Your task to perform on an android device: open app "Messenger Lite" (install if not already installed), go to login, and select forgot password Image 0: 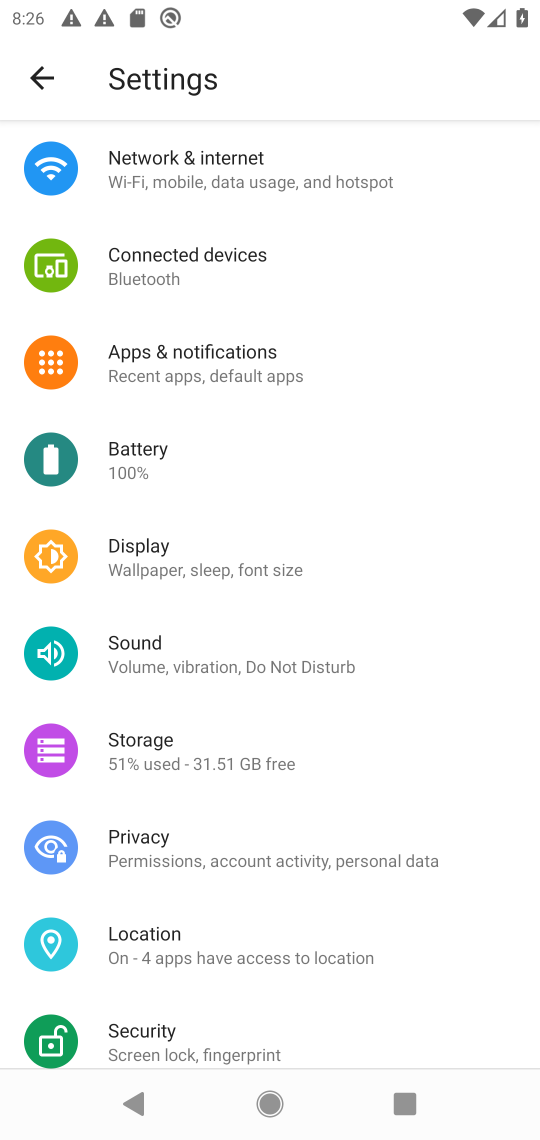
Step 0: press home button
Your task to perform on an android device: open app "Messenger Lite" (install if not already installed), go to login, and select forgot password Image 1: 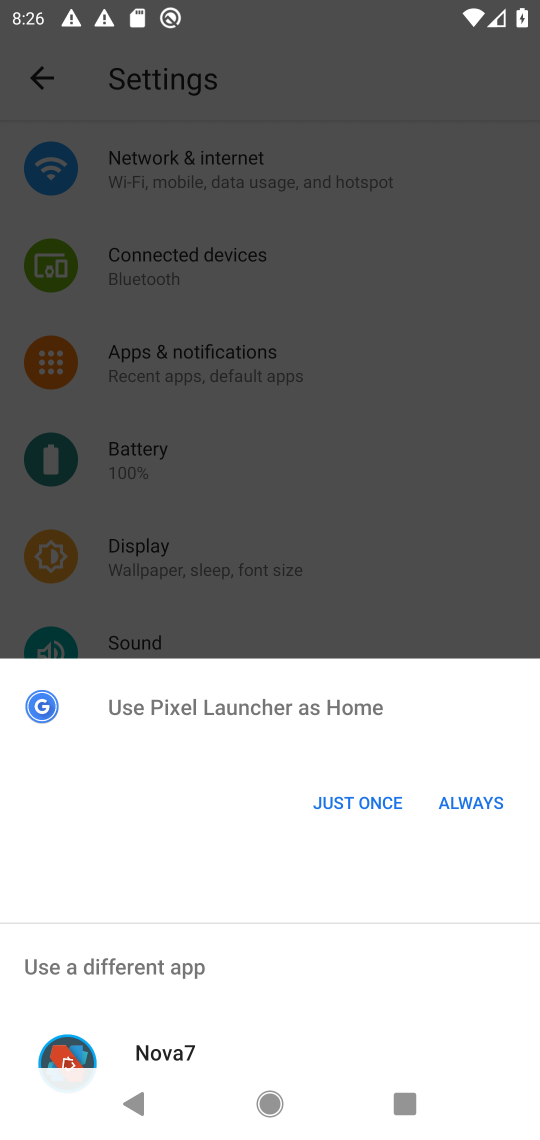
Step 1: click (363, 797)
Your task to perform on an android device: open app "Messenger Lite" (install if not already installed), go to login, and select forgot password Image 2: 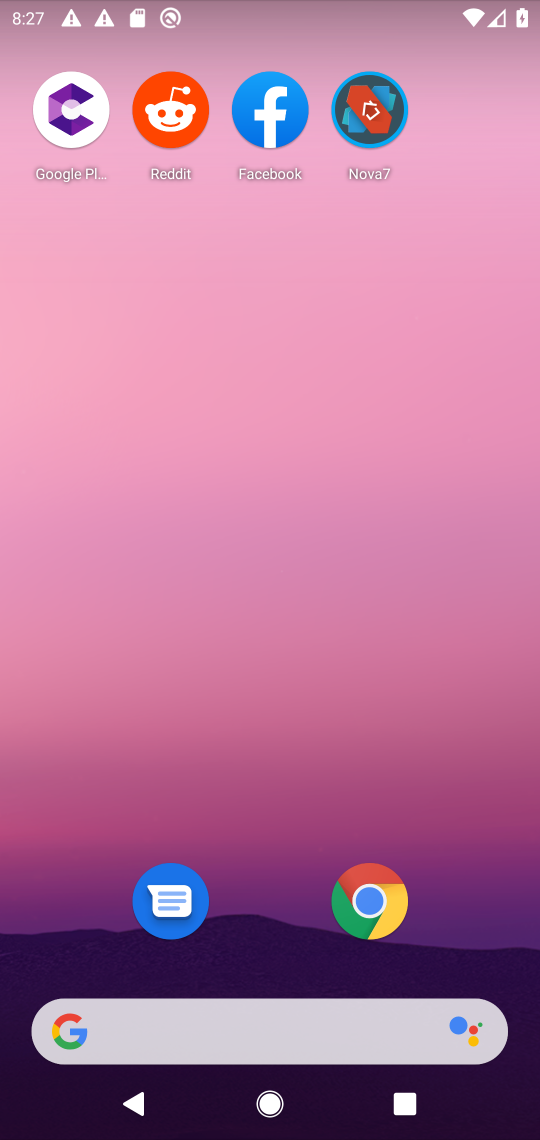
Step 2: drag from (335, 1065) to (367, 80)
Your task to perform on an android device: open app "Messenger Lite" (install if not already installed), go to login, and select forgot password Image 3: 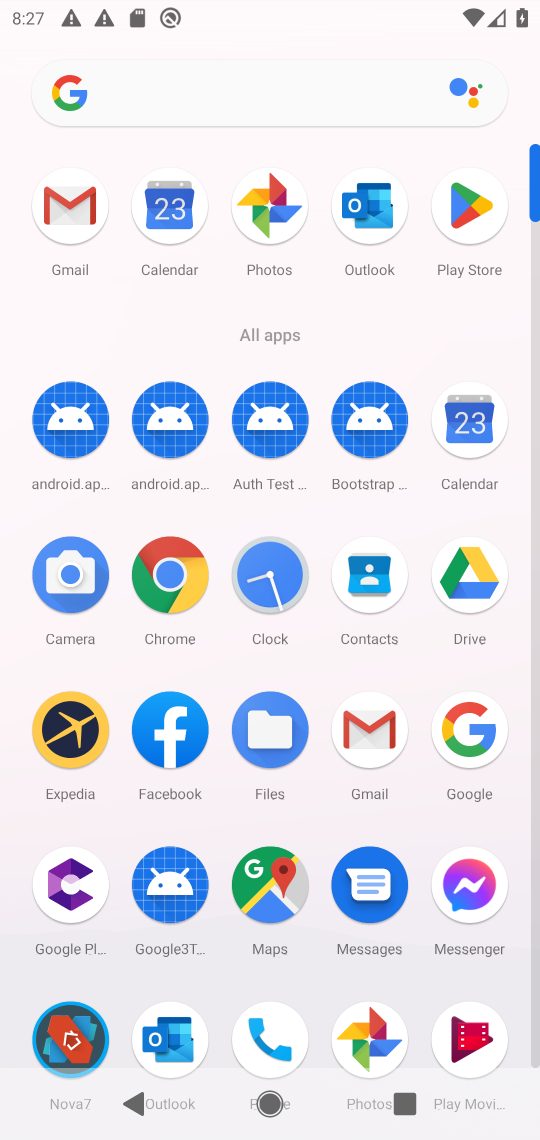
Step 3: click (473, 194)
Your task to perform on an android device: open app "Messenger Lite" (install if not already installed), go to login, and select forgot password Image 4: 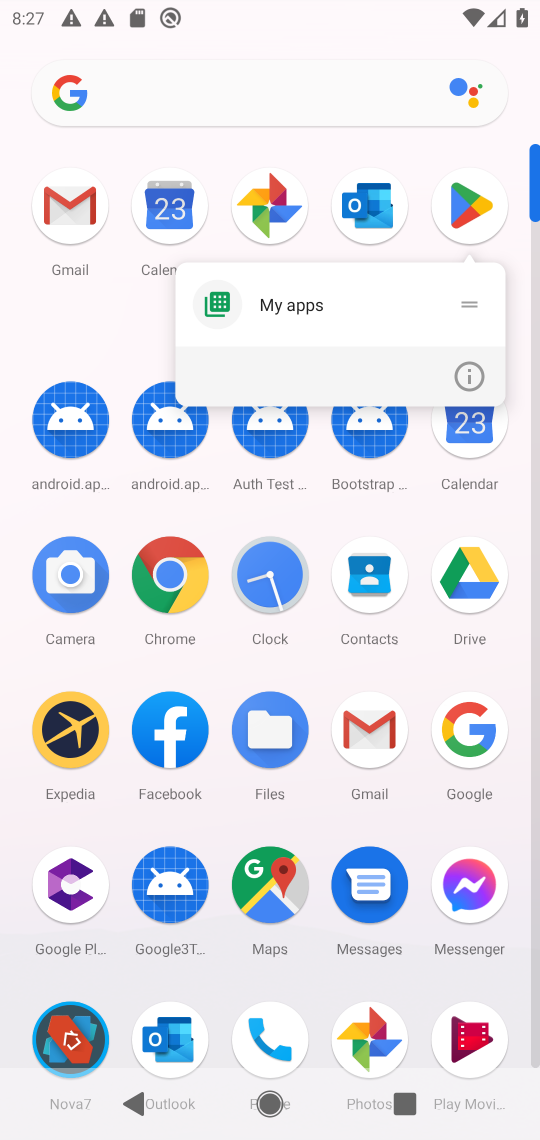
Step 4: click (473, 194)
Your task to perform on an android device: open app "Messenger Lite" (install if not already installed), go to login, and select forgot password Image 5: 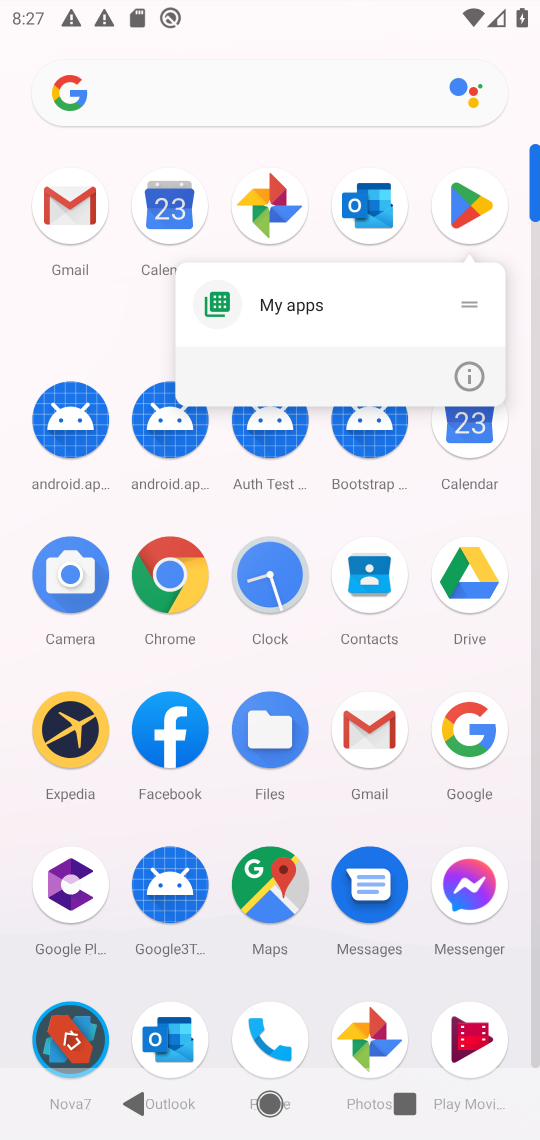
Step 5: click (473, 194)
Your task to perform on an android device: open app "Messenger Lite" (install if not already installed), go to login, and select forgot password Image 6: 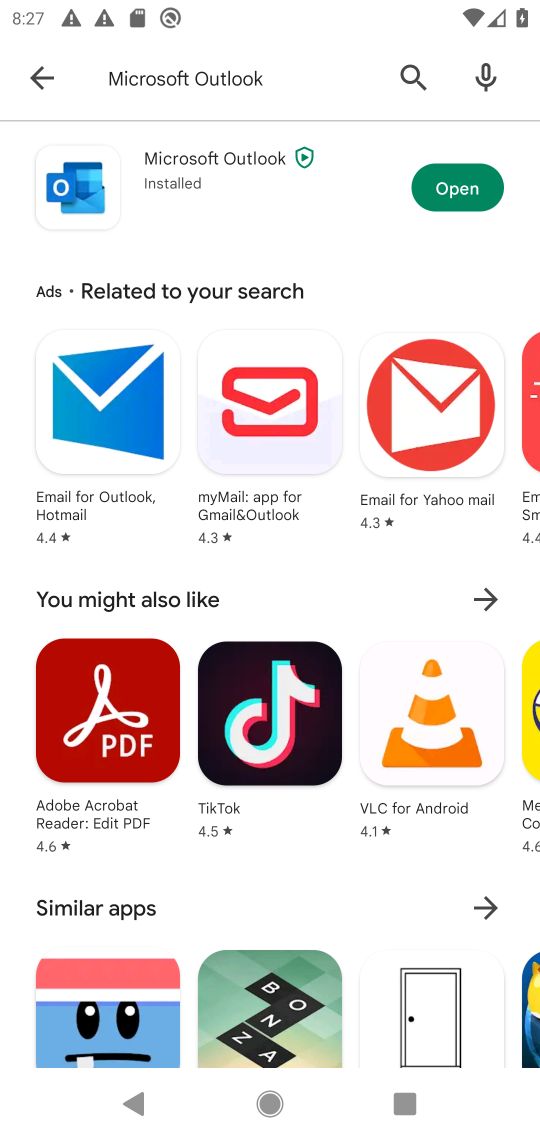
Step 6: press back button
Your task to perform on an android device: open app "Messenger Lite" (install if not already installed), go to login, and select forgot password Image 7: 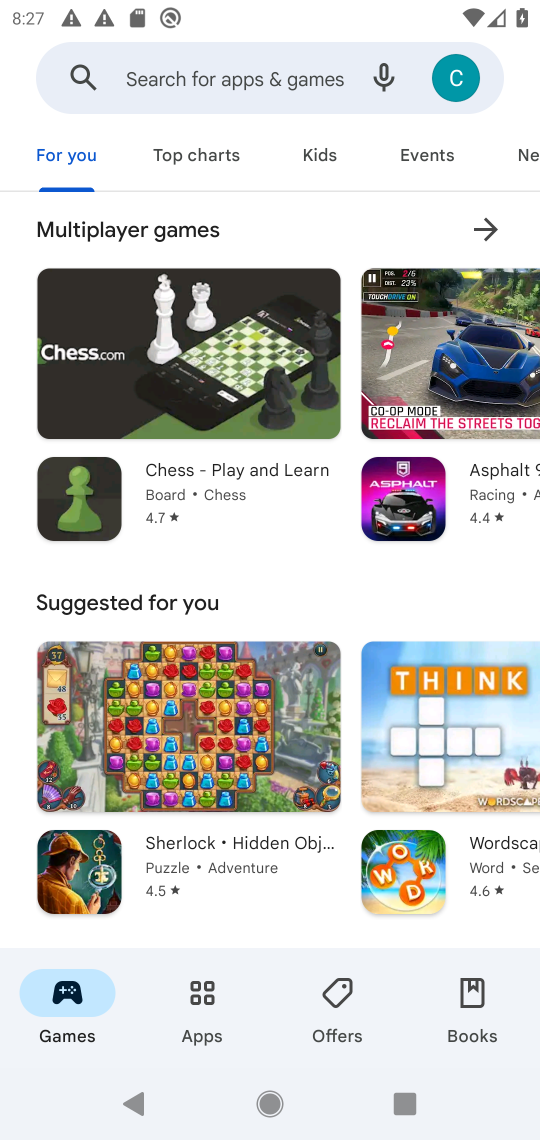
Step 7: click (189, 72)
Your task to perform on an android device: open app "Messenger Lite" (install if not already installed), go to login, and select forgot password Image 8: 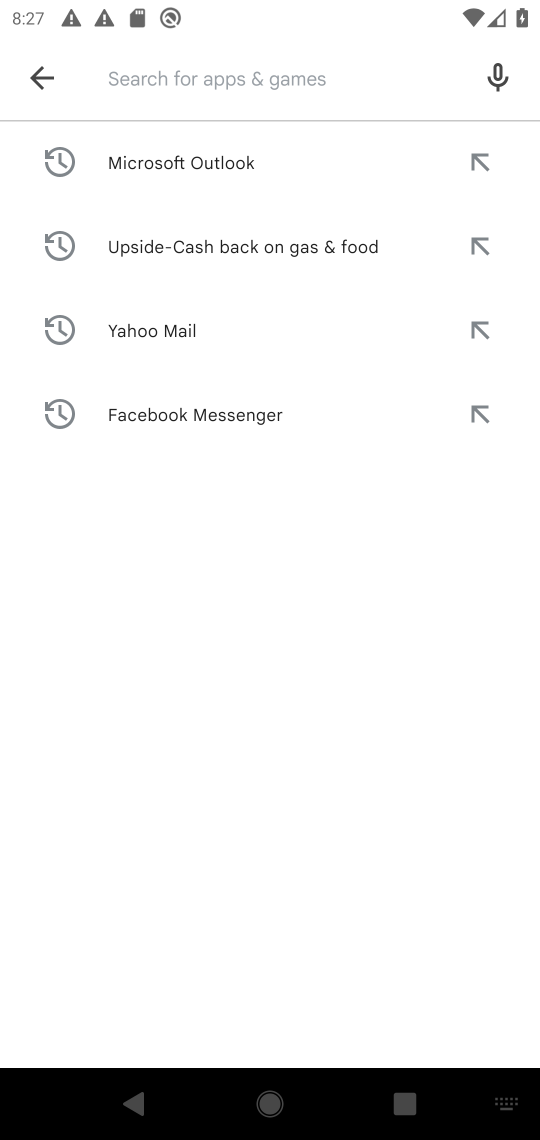
Step 8: type "Messenger Lite"
Your task to perform on an android device: open app "Messenger Lite" (install if not already installed), go to login, and select forgot password Image 9: 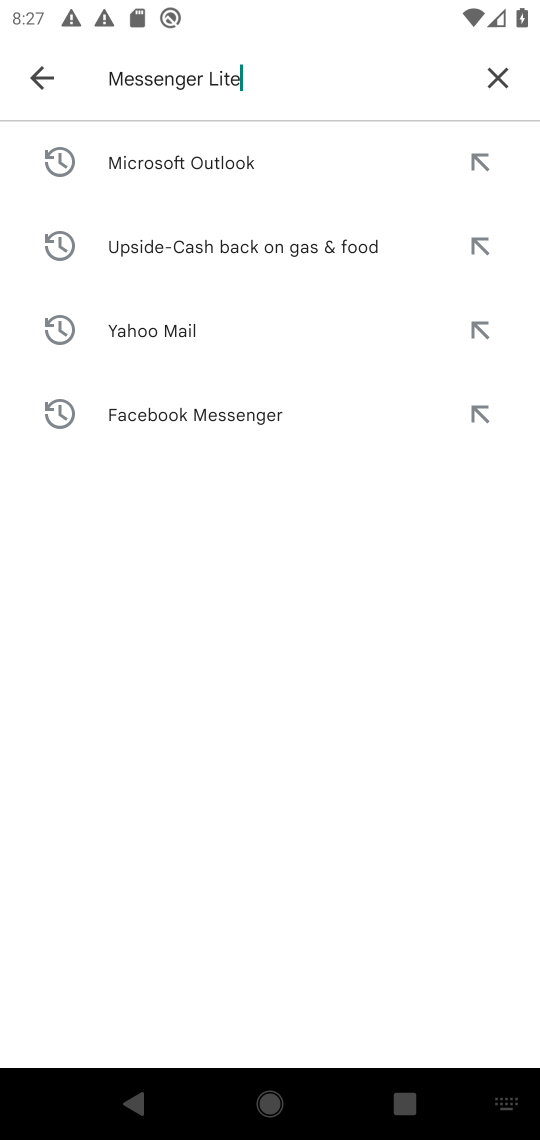
Step 9: press enter
Your task to perform on an android device: open app "Messenger Lite" (install if not already installed), go to login, and select forgot password Image 10: 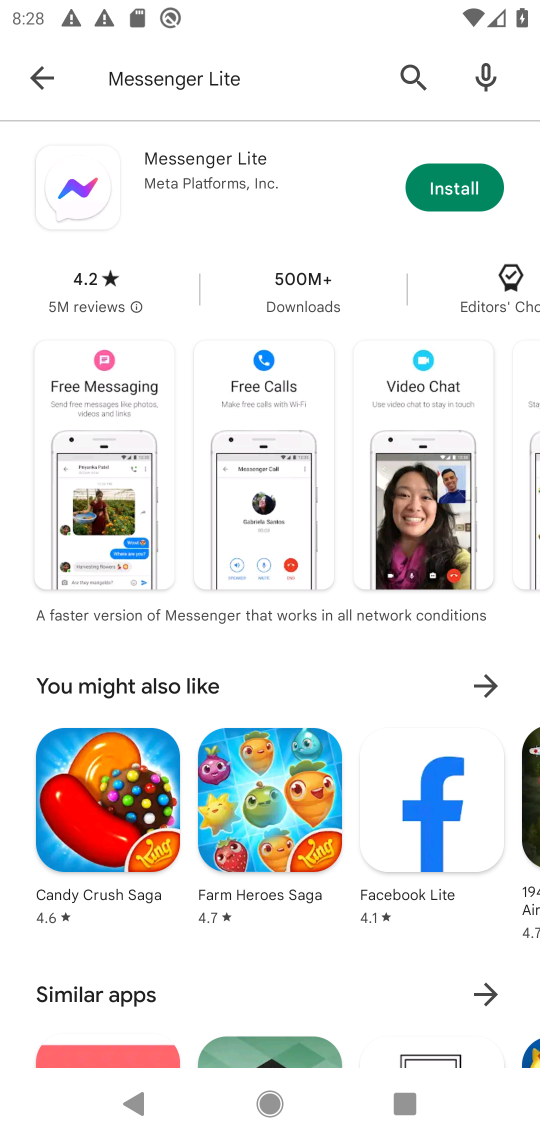
Step 10: click (460, 196)
Your task to perform on an android device: open app "Messenger Lite" (install if not already installed), go to login, and select forgot password Image 11: 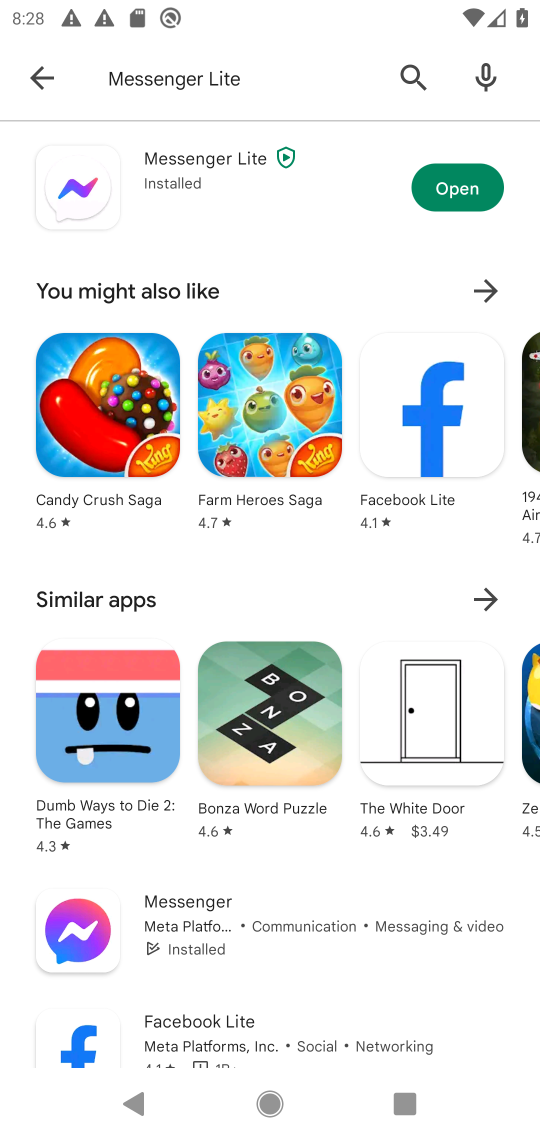
Step 11: click (448, 182)
Your task to perform on an android device: open app "Messenger Lite" (install if not already installed), go to login, and select forgot password Image 12: 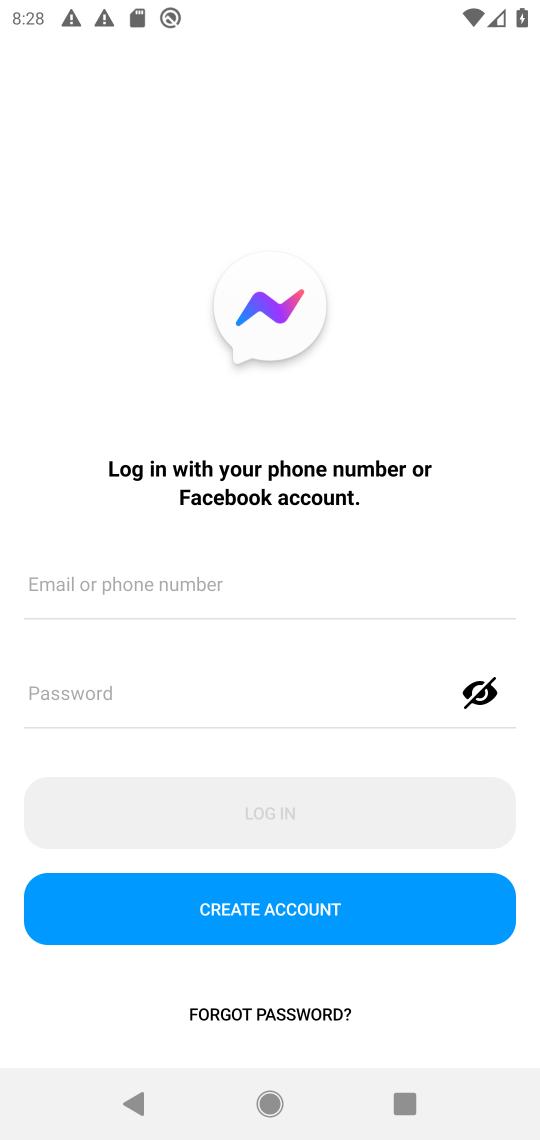
Step 12: click (244, 1017)
Your task to perform on an android device: open app "Messenger Lite" (install if not already installed), go to login, and select forgot password Image 13: 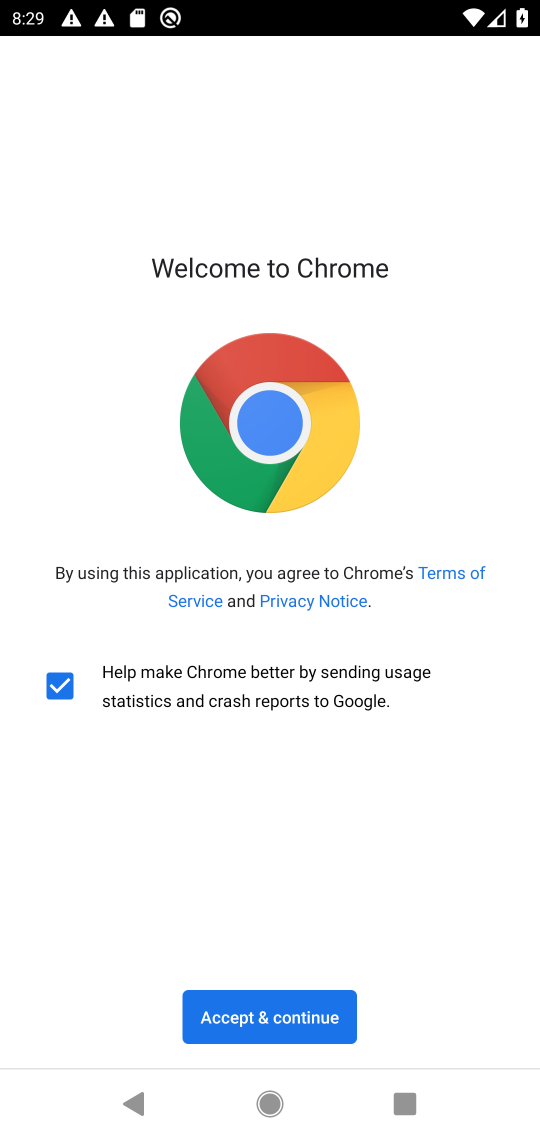
Step 13: task complete